Your task to perform on an android device: Open location settings Image 0: 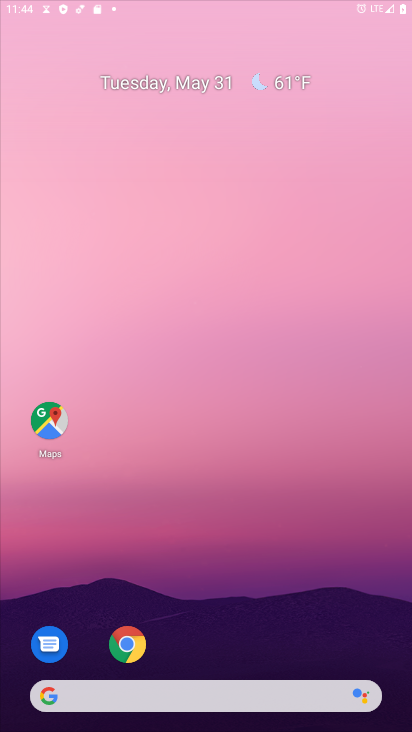
Step 0: click (28, 44)
Your task to perform on an android device: Open location settings Image 1: 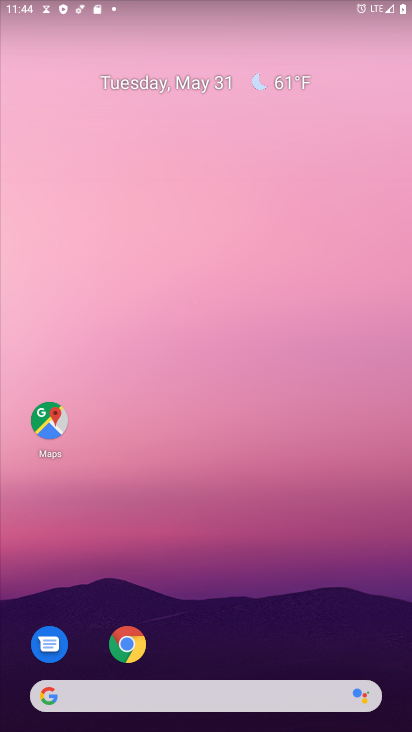
Step 1: drag from (204, 621) to (276, 121)
Your task to perform on an android device: Open location settings Image 2: 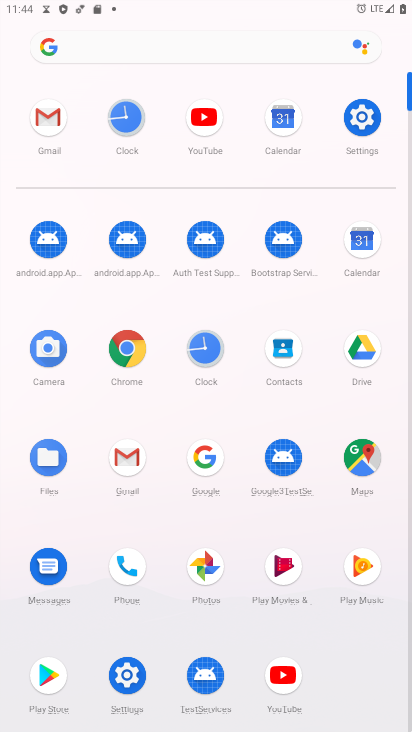
Step 2: click (371, 112)
Your task to perform on an android device: Open location settings Image 3: 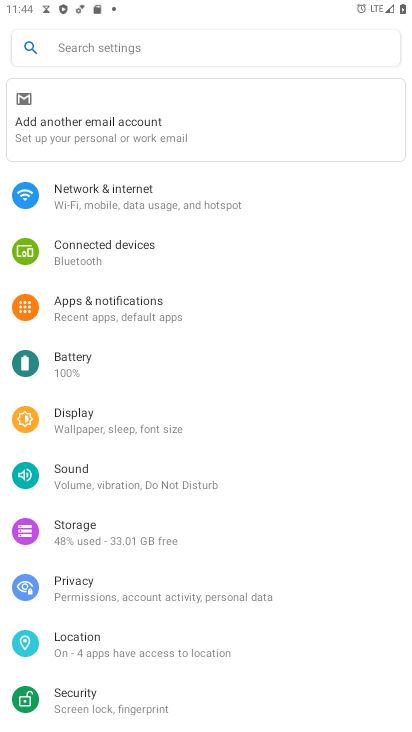
Step 3: click (79, 646)
Your task to perform on an android device: Open location settings Image 4: 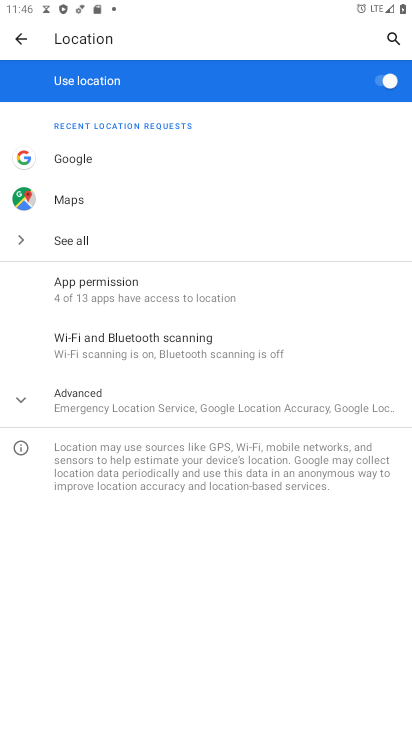
Step 4: task complete